Your task to perform on an android device: Open the calendar app, open the side menu, and click the "Day" option Image 0: 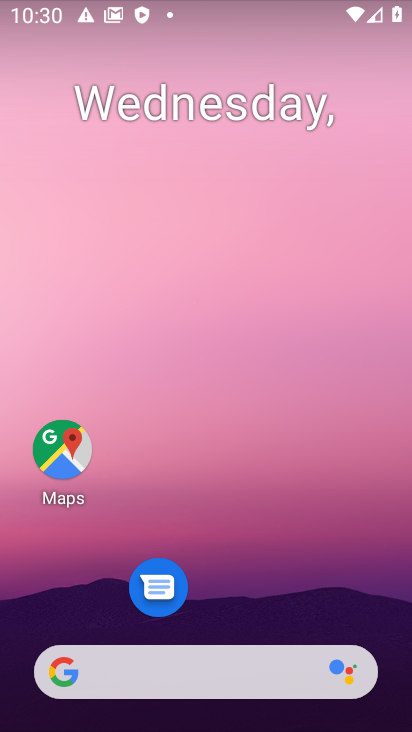
Step 0: press home button
Your task to perform on an android device: Open the calendar app, open the side menu, and click the "Day" option Image 1: 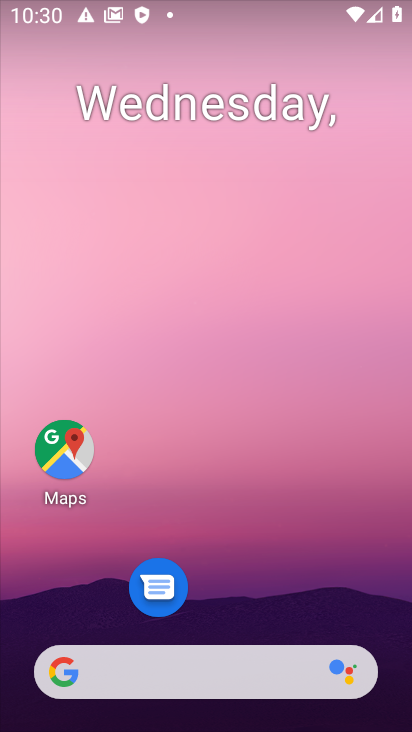
Step 1: drag from (234, 624) to (264, 9)
Your task to perform on an android device: Open the calendar app, open the side menu, and click the "Day" option Image 2: 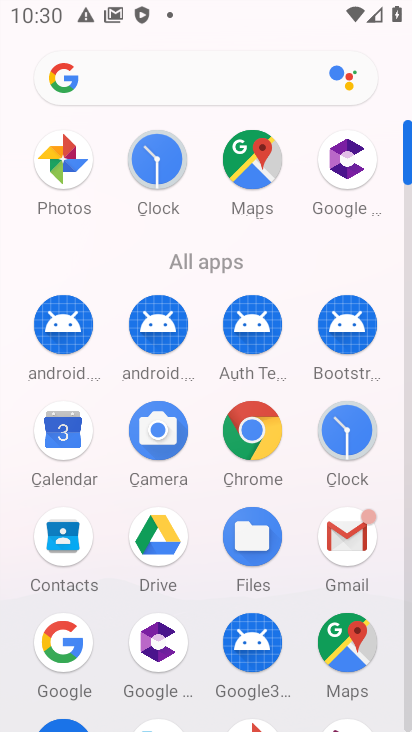
Step 2: click (60, 430)
Your task to perform on an android device: Open the calendar app, open the side menu, and click the "Day" option Image 3: 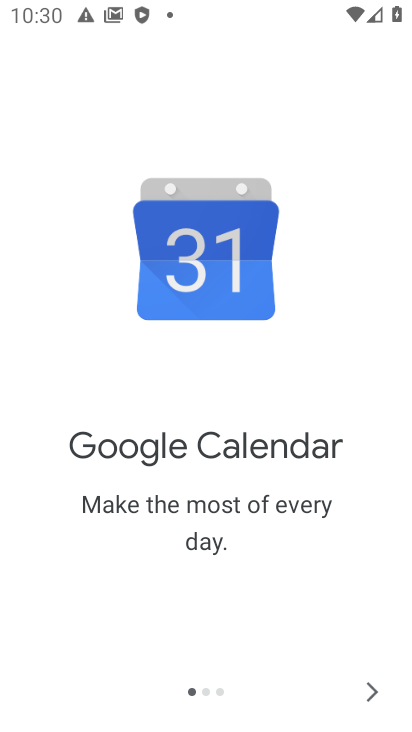
Step 3: click (382, 681)
Your task to perform on an android device: Open the calendar app, open the side menu, and click the "Day" option Image 4: 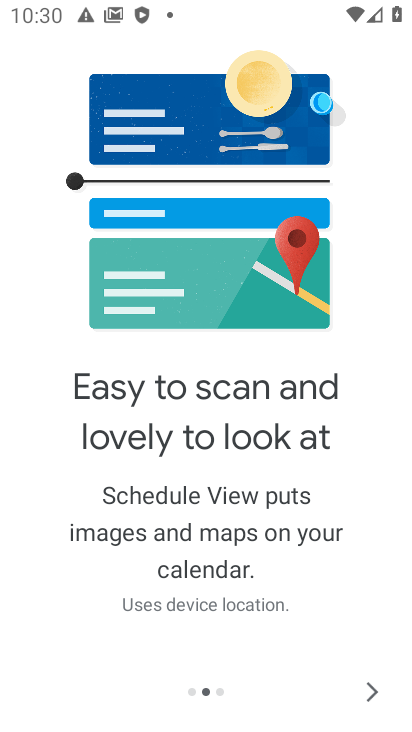
Step 4: click (382, 681)
Your task to perform on an android device: Open the calendar app, open the side menu, and click the "Day" option Image 5: 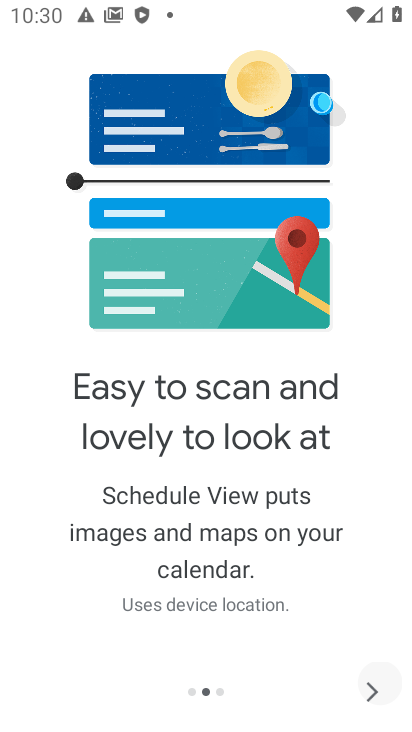
Step 5: click (382, 681)
Your task to perform on an android device: Open the calendar app, open the side menu, and click the "Day" option Image 6: 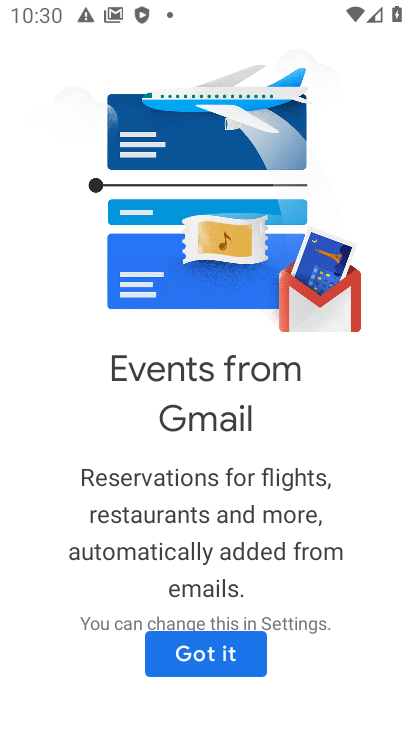
Step 6: click (195, 666)
Your task to perform on an android device: Open the calendar app, open the side menu, and click the "Day" option Image 7: 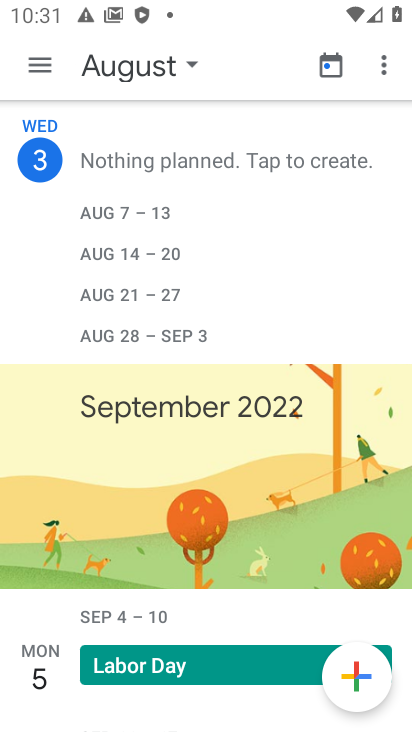
Step 7: click (45, 68)
Your task to perform on an android device: Open the calendar app, open the side menu, and click the "Day" option Image 8: 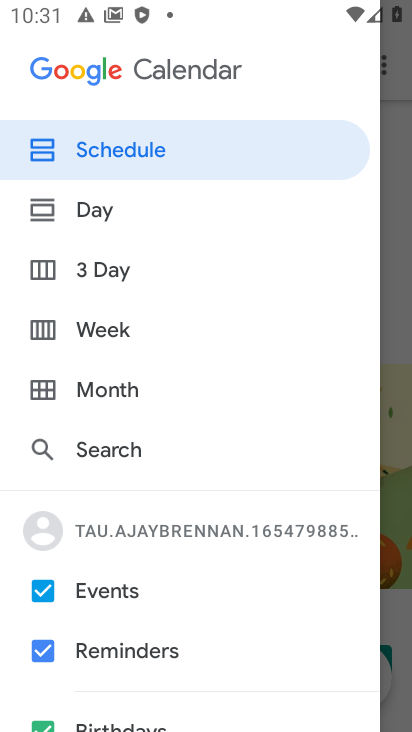
Step 8: click (61, 206)
Your task to perform on an android device: Open the calendar app, open the side menu, and click the "Day" option Image 9: 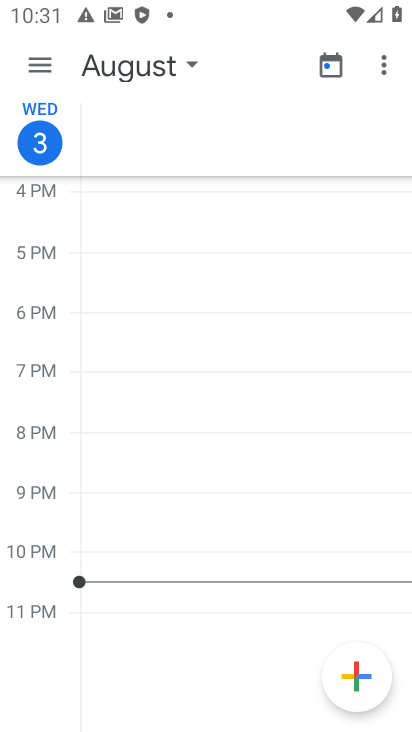
Step 9: task complete